Your task to perform on an android device: uninstall "Google Play services" Image 0: 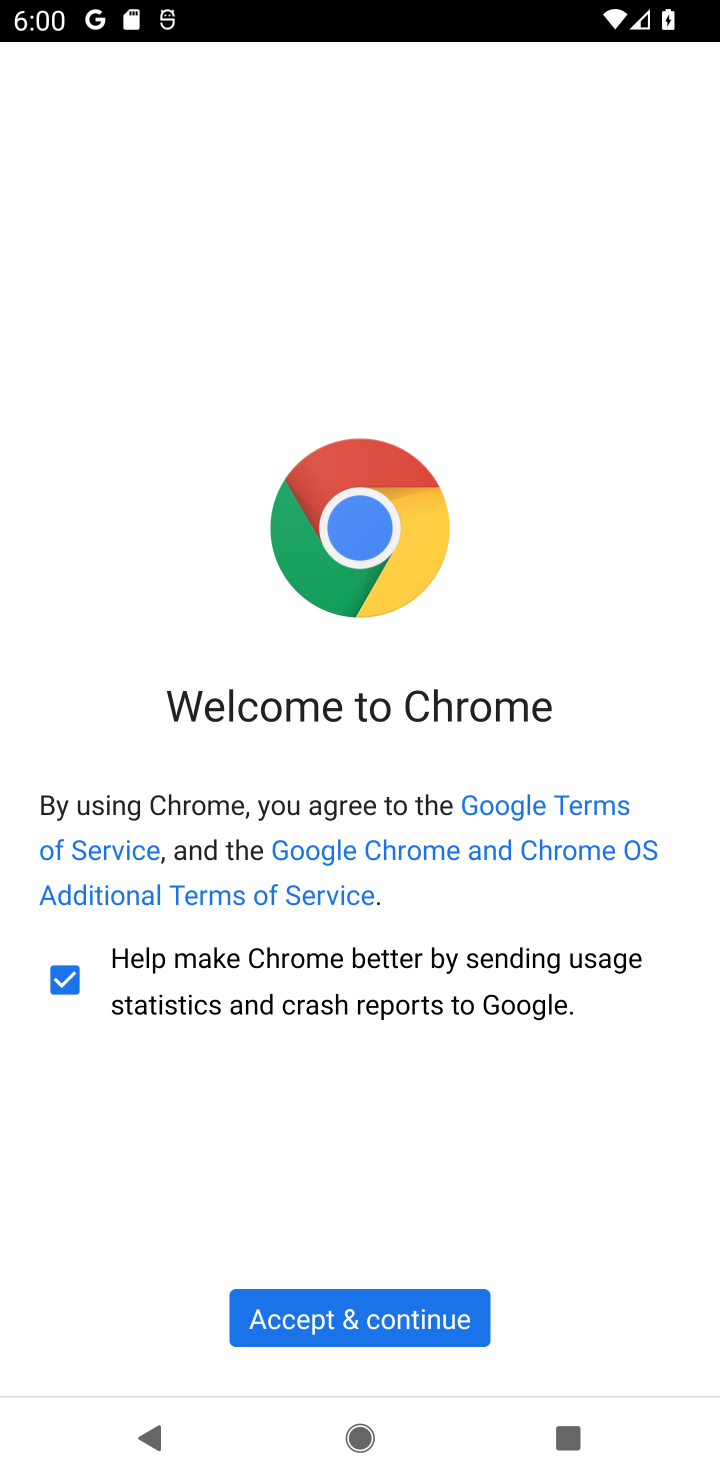
Step 0: press home button
Your task to perform on an android device: uninstall "Google Play services" Image 1: 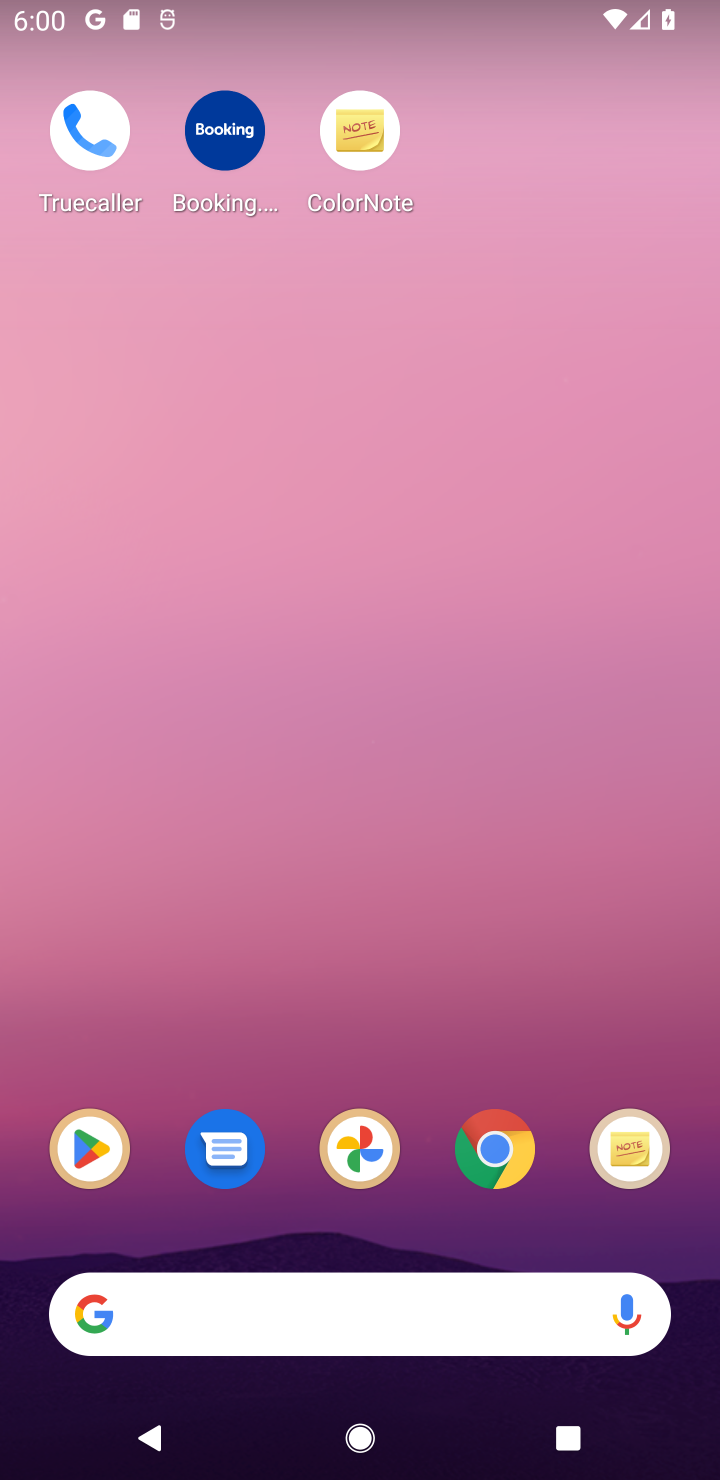
Step 1: drag from (411, 884) to (653, 3)
Your task to perform on an android device: uninstall "Google Play services" Image 2: 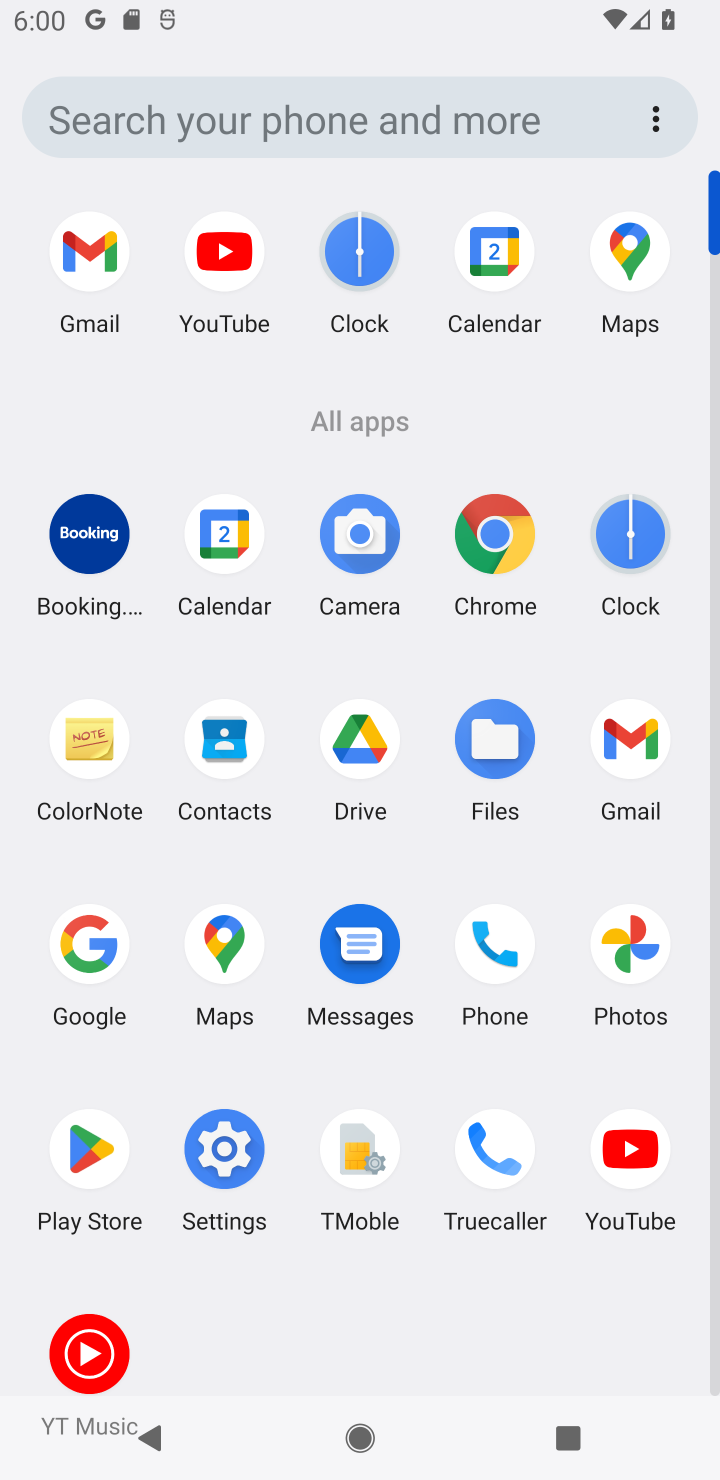
Step 2: click (50, 1166)
Your task to perform on an android device: uninstall "Google Play services" Image 3: 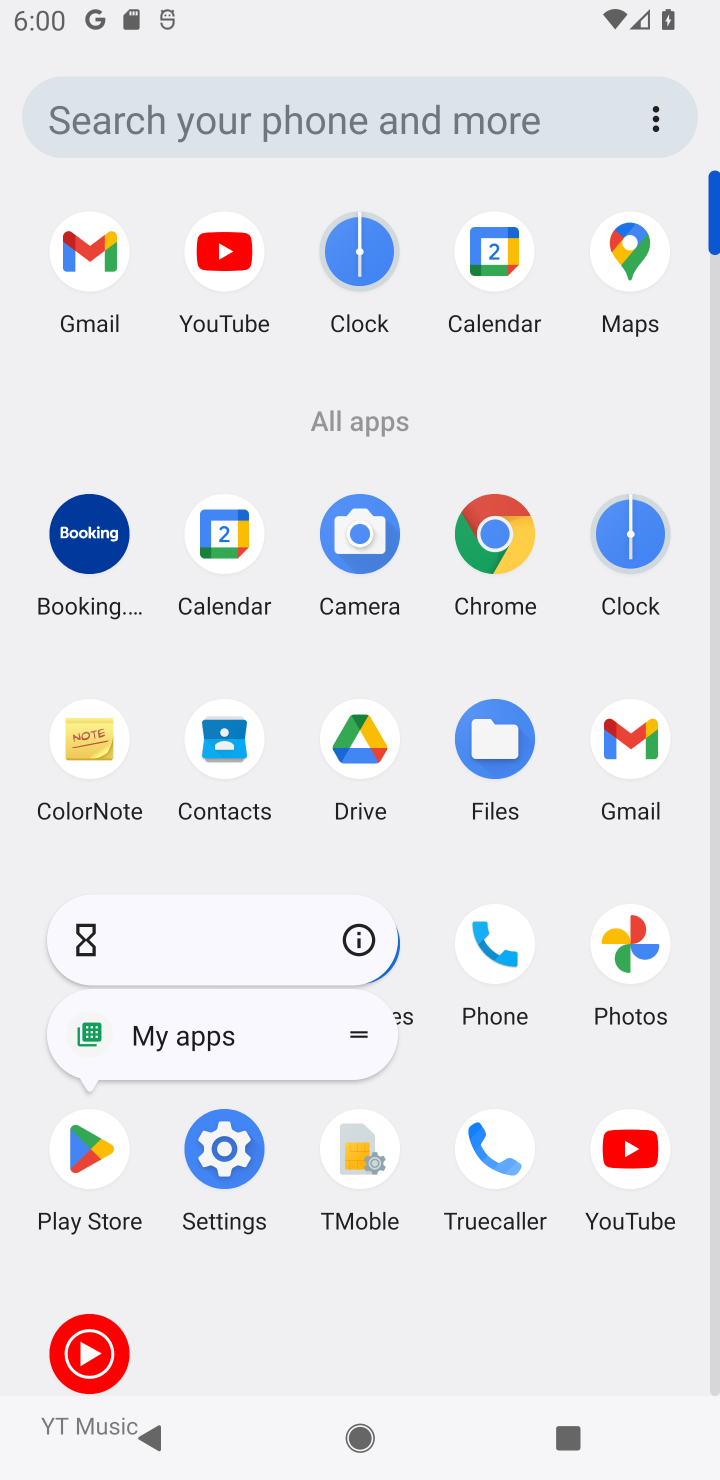
Step 3: click (96, 1160)
Your task to perform on an android device: uninstall "Google Play services" Image 4: 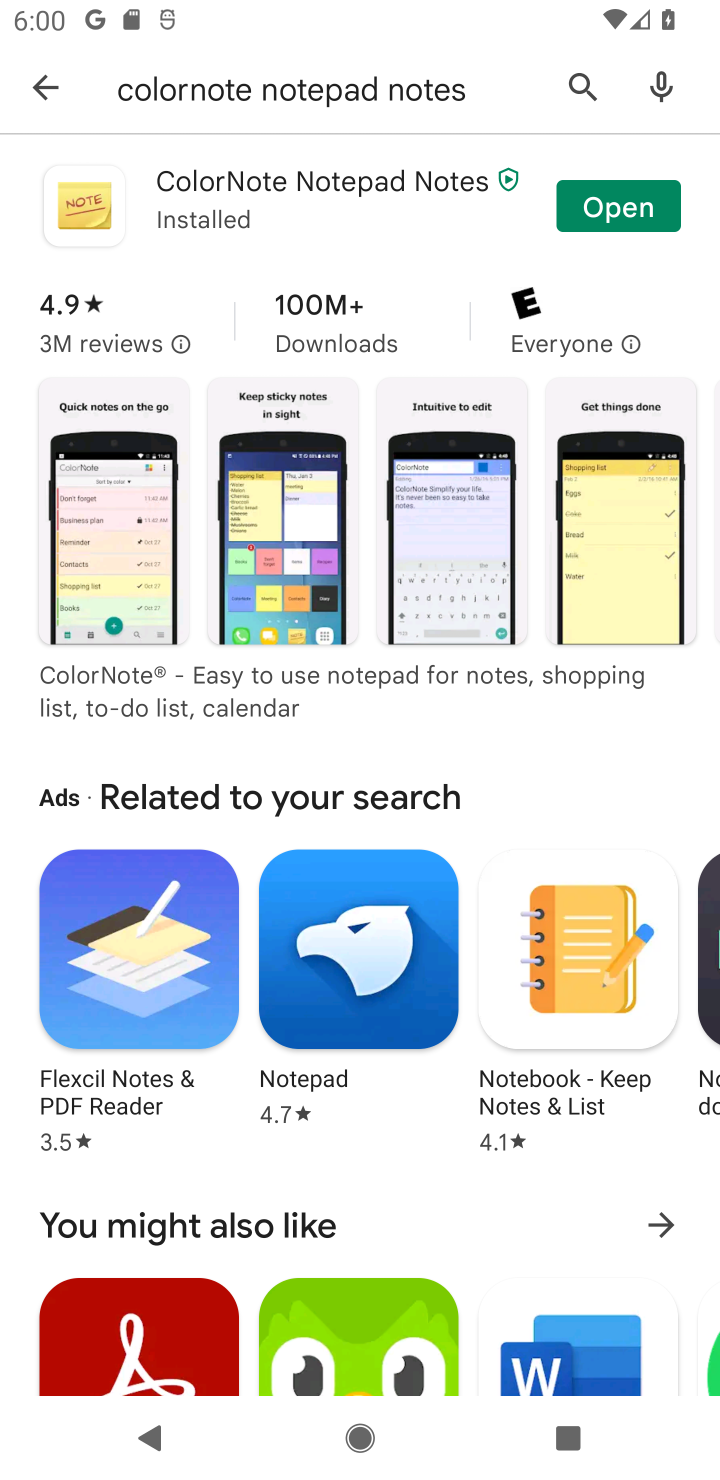
Step 4: click (29, 95)
Your task to perform on an android device: uninstall "Google Play services" Image 5: 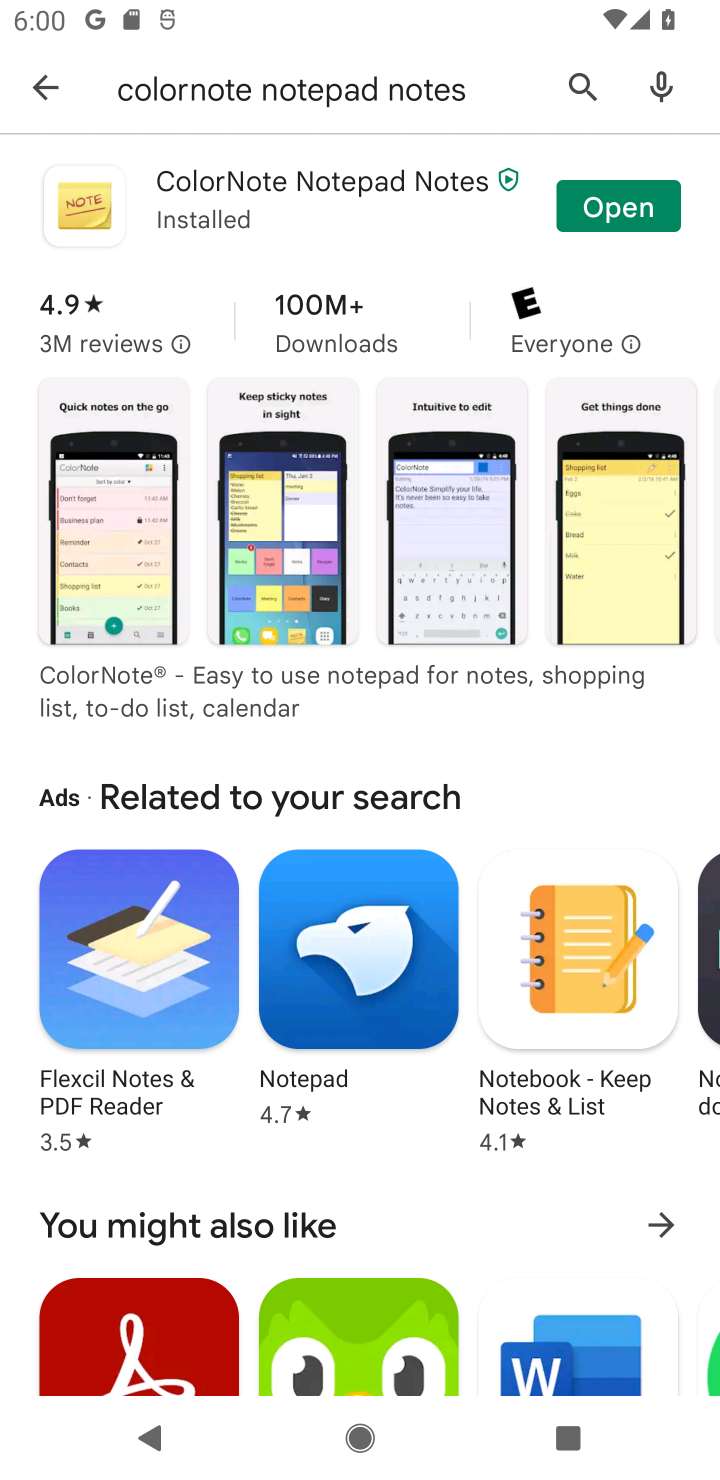
Step 5: click (59, 82)
Your task to perform on an android device: uninstall "Google Play services" Image 6: 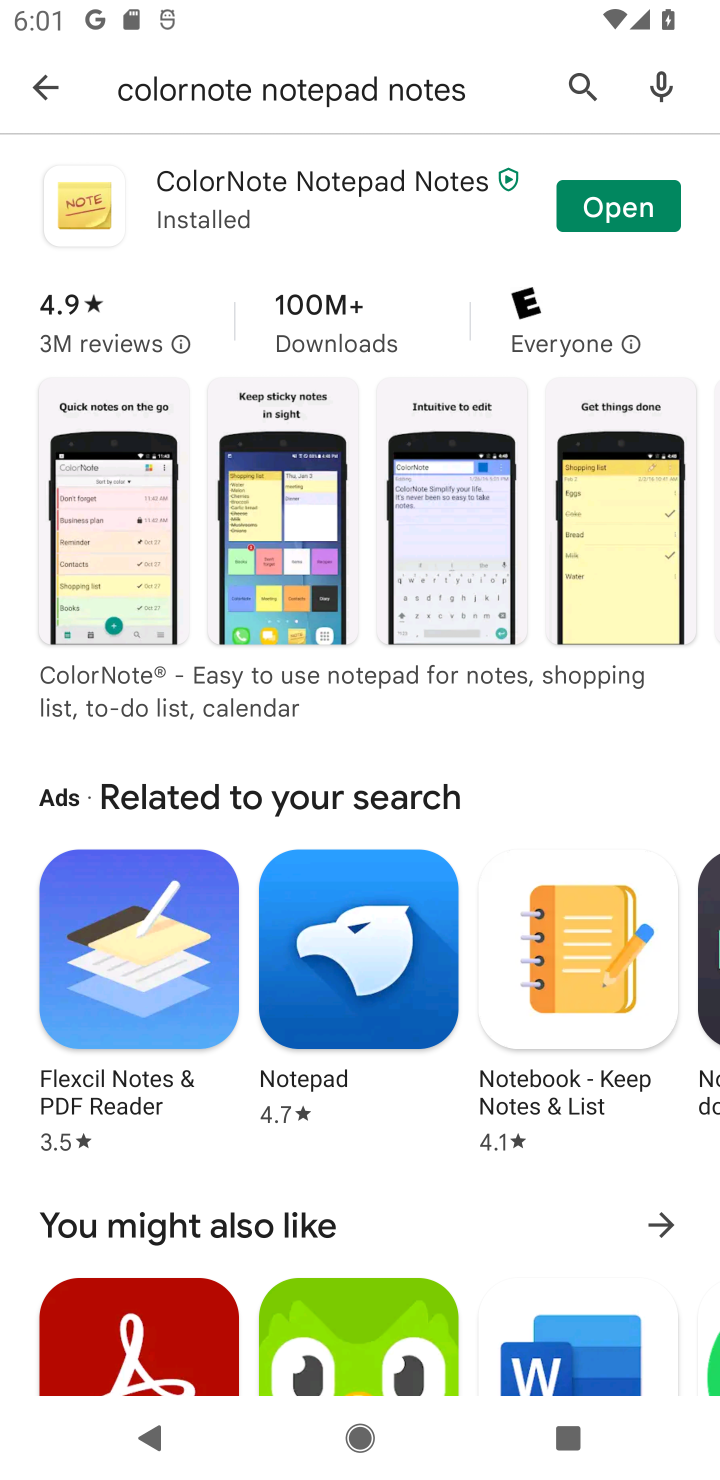
Step 6: click (58, 71)
Your task to perform on an android device: uninstall "Google Play services" Image 7: 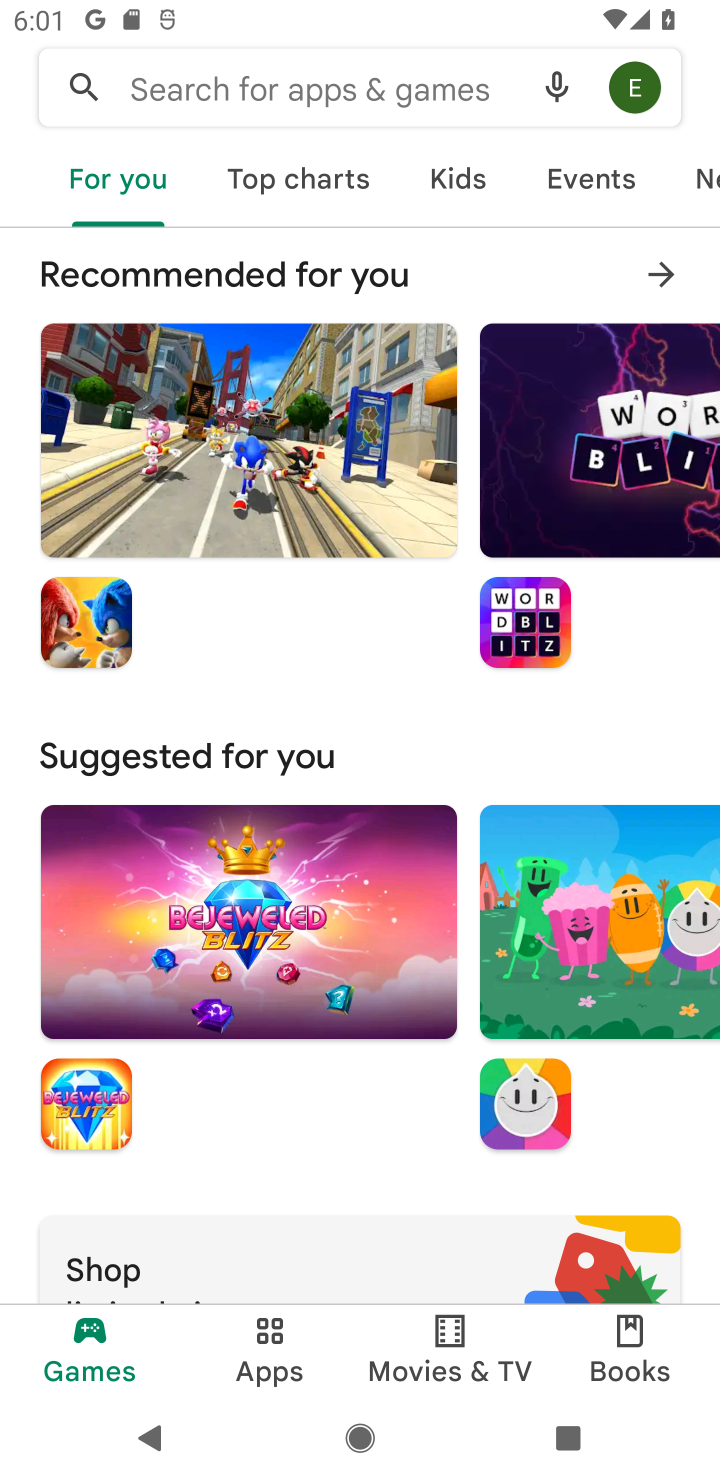
Step 7: click (189, 62)
Your task to perform on an android device: uninstall "Google Play services" Image 8: 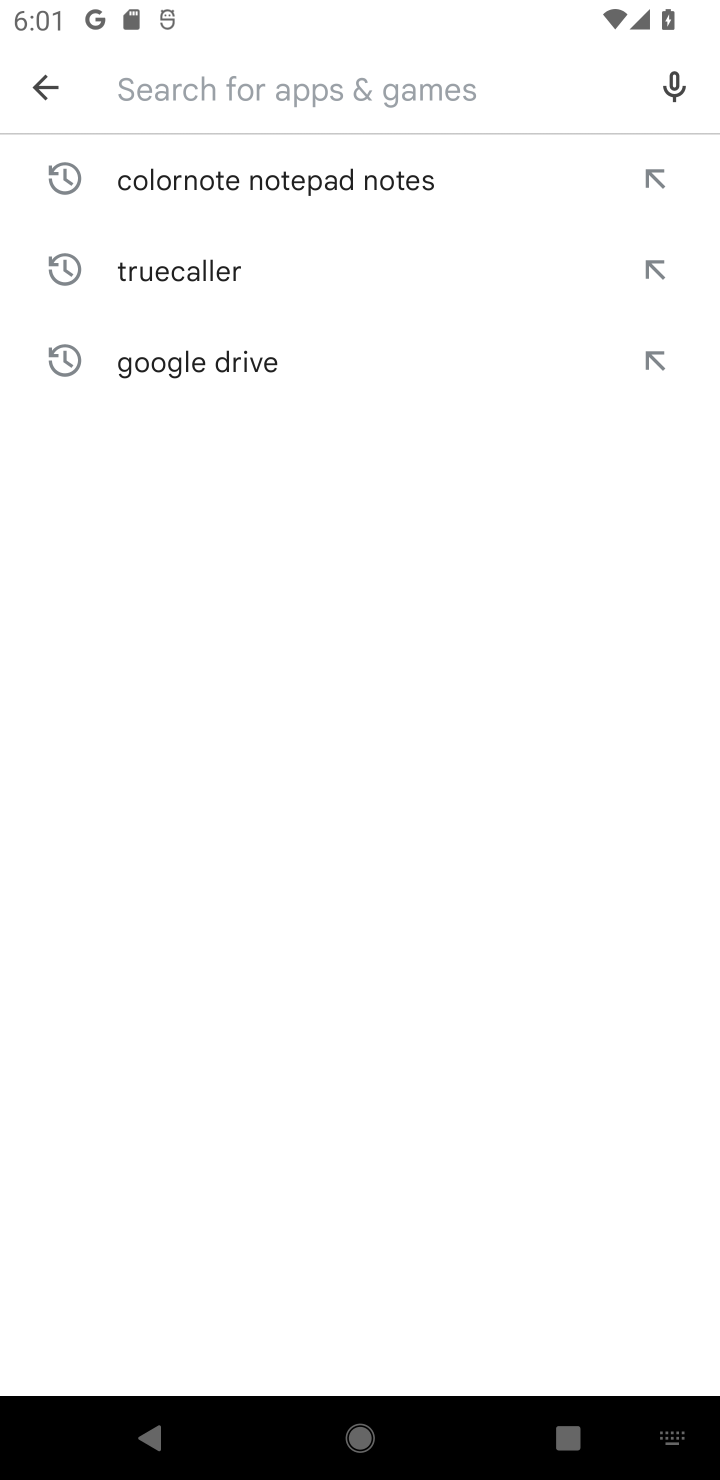
Step 8: type "Google Play services"
Your task to perform on an android device: uninstall "Google Play services" Image 9: 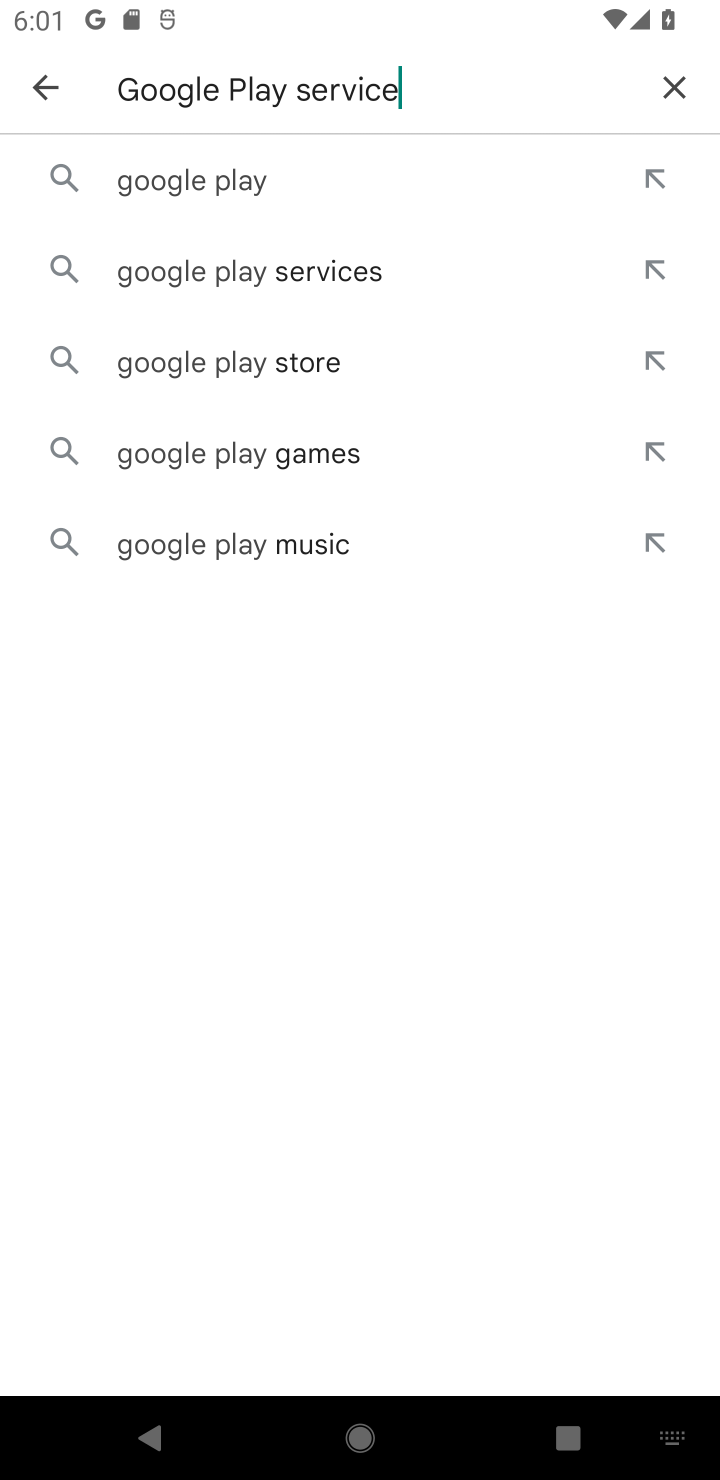
Step 9: type ""
Your task to perform on an android device: uninstall "Google Play services" Image 10: 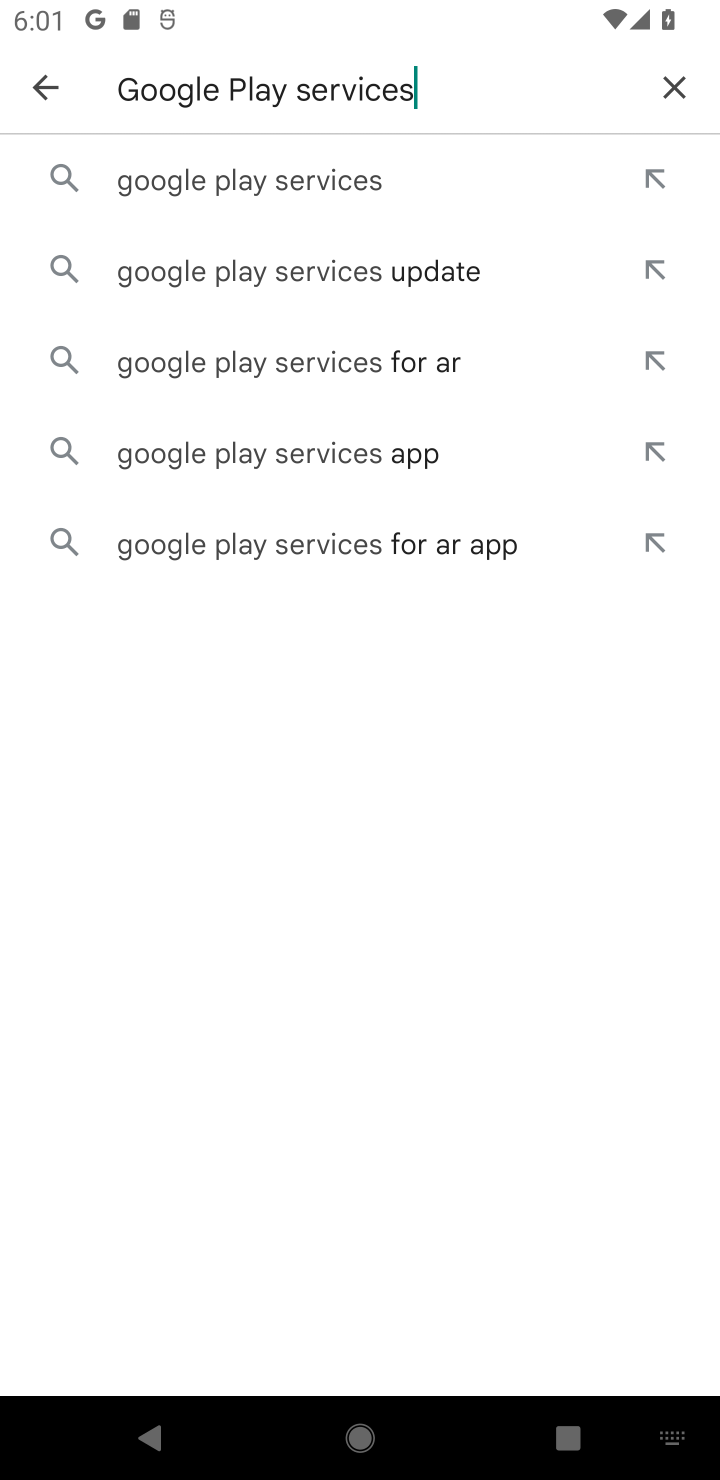
Step 10: click (196, 196)
Your task to perform on an android device: uninstall "Google Play services" Image 11: 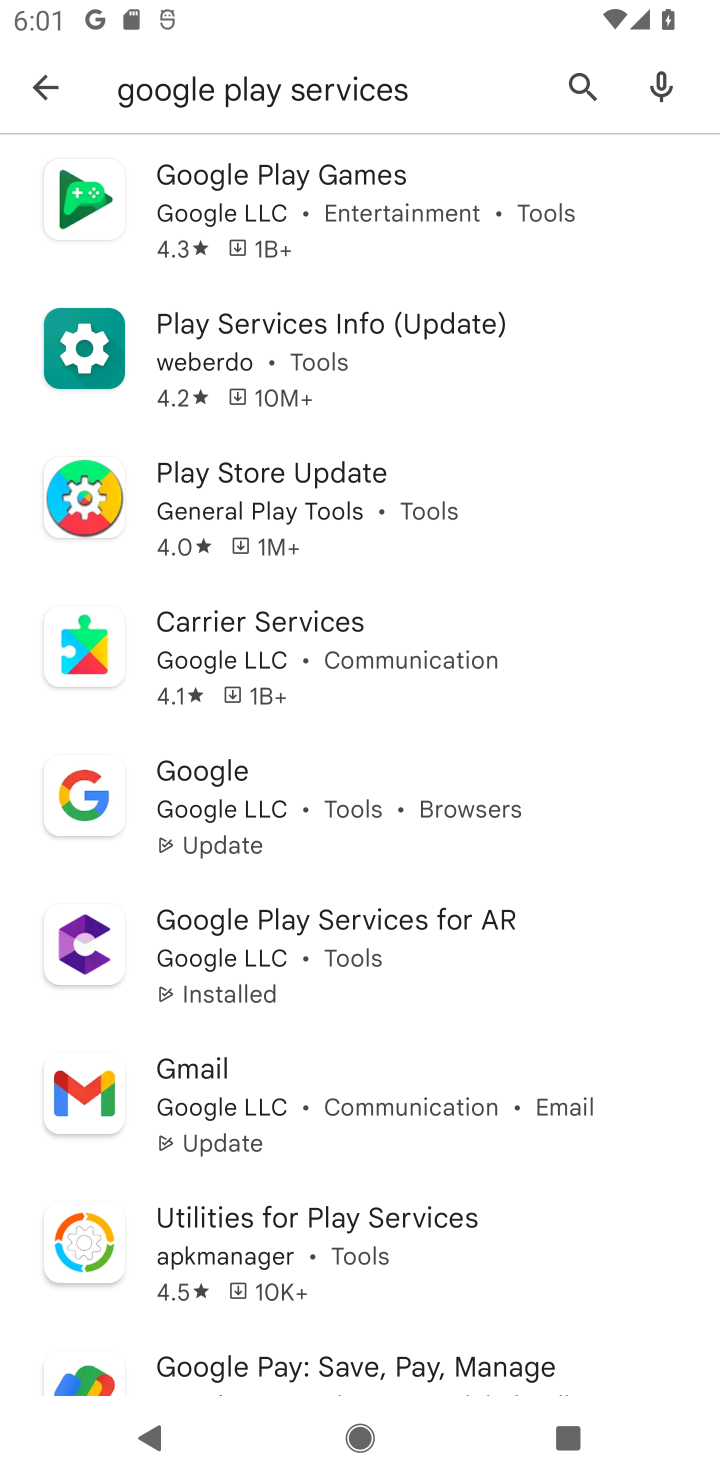
Step 11: click (251, 178)
Your task to perform on an android device: uninstall "Google Play services" Image 12: 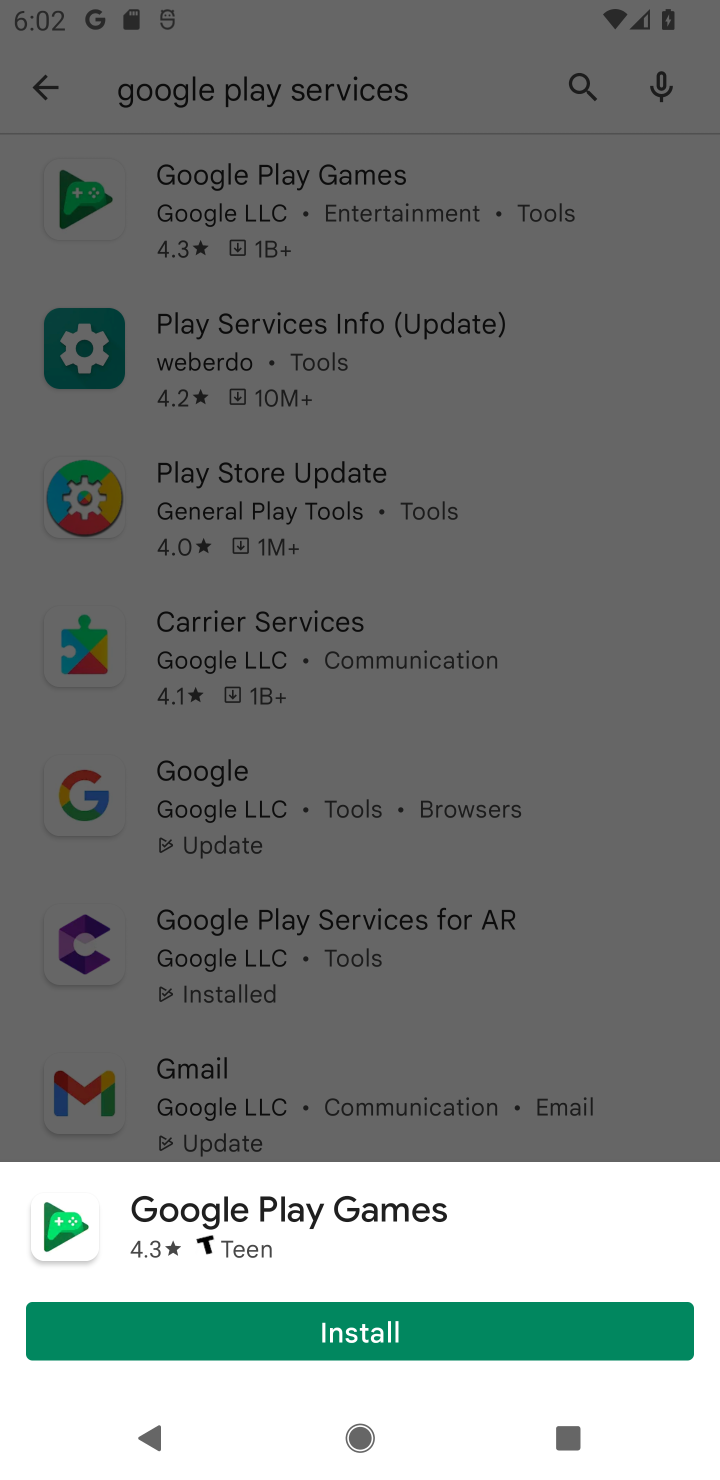
Step 12: click (323, 186)
Your task to perform on an android device: uninstall "Google Play services" Image 13: 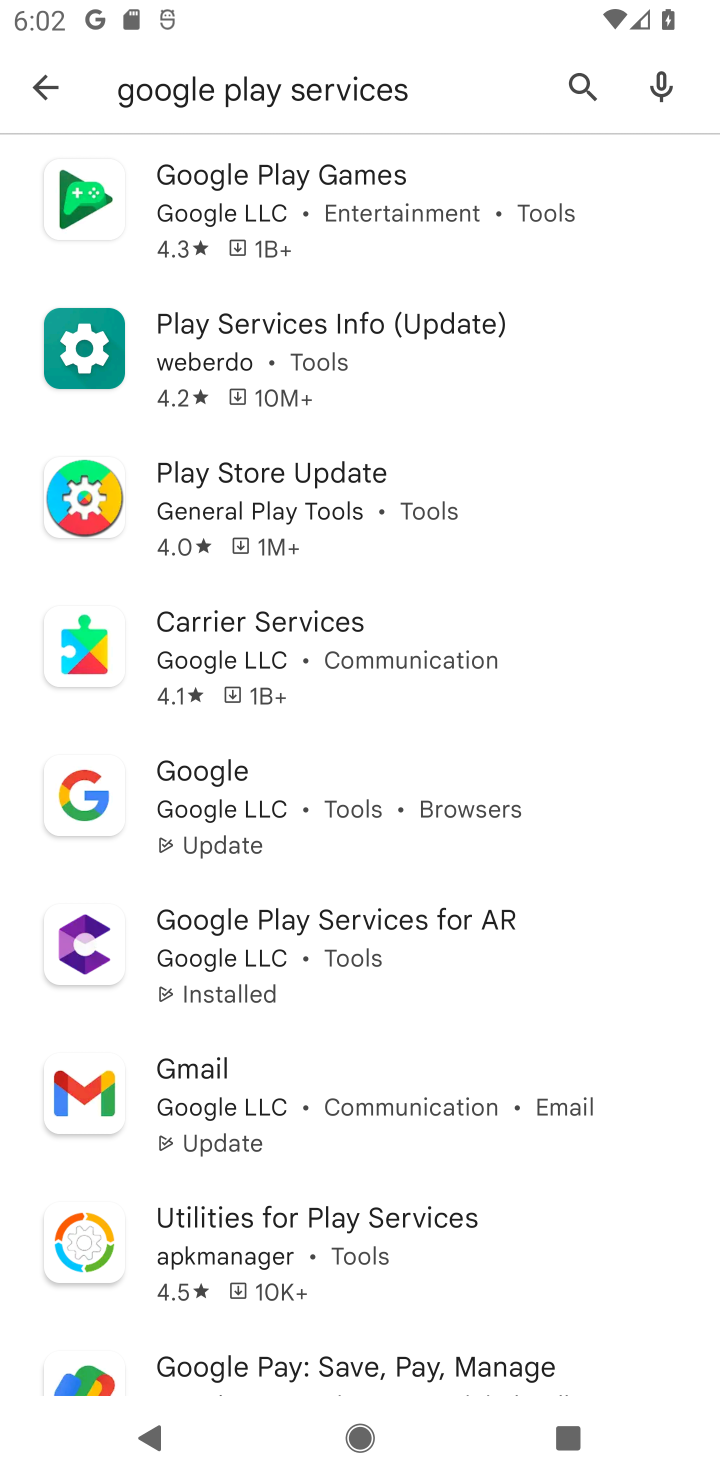
Step 13: task complete